Your task to perform on an android device: all mails in gmail Image 0: 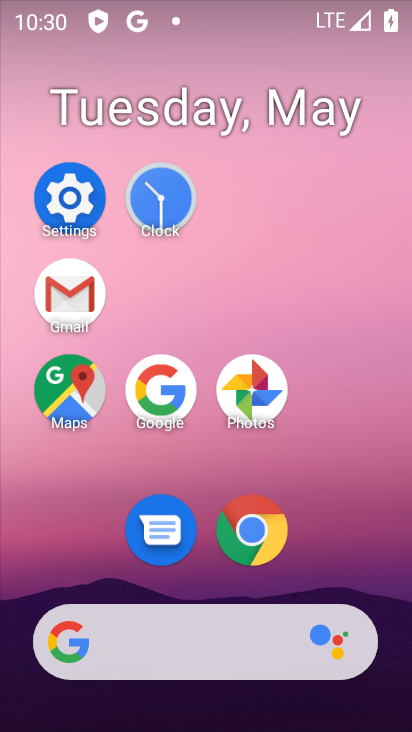
Step 0: click (81, 293)
Your task to perform on an android device: all mails in gmail Image 1: 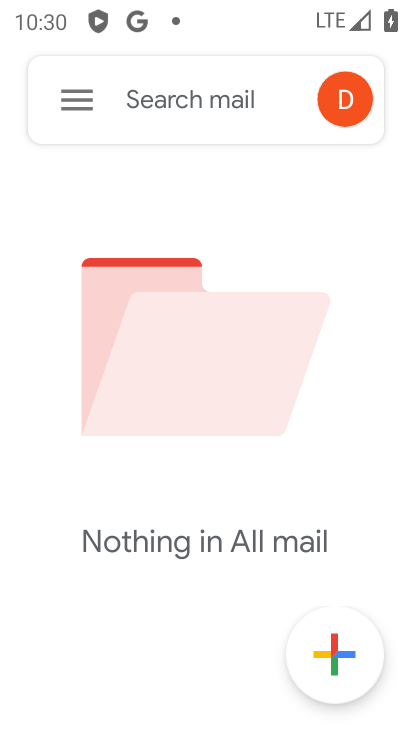
Step 1: click (72, 98)
Your task to perform on an android device: all mails in gmail Image 2: 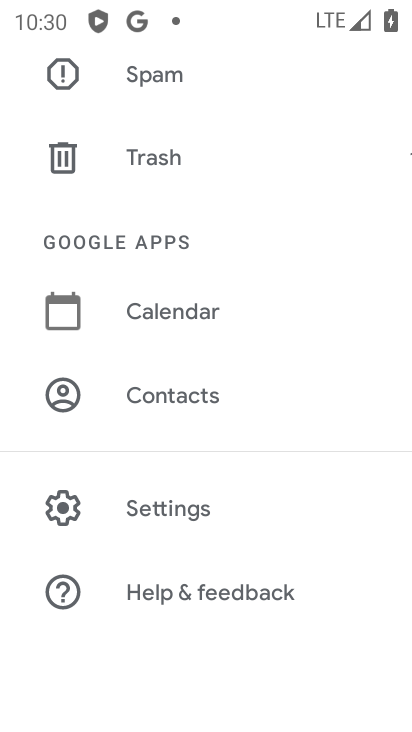
Step 2: drag from (274, 284) to (255, 616)
Your task to perform on an android device: all mails in gmail Image 3: 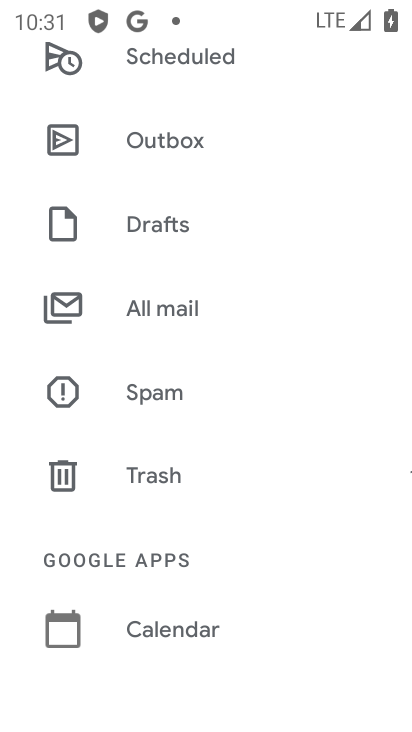
Step 3: drag from (248, 188) to (228, 573)
Your task to perform on an android device: all mails in gmail Image 4: 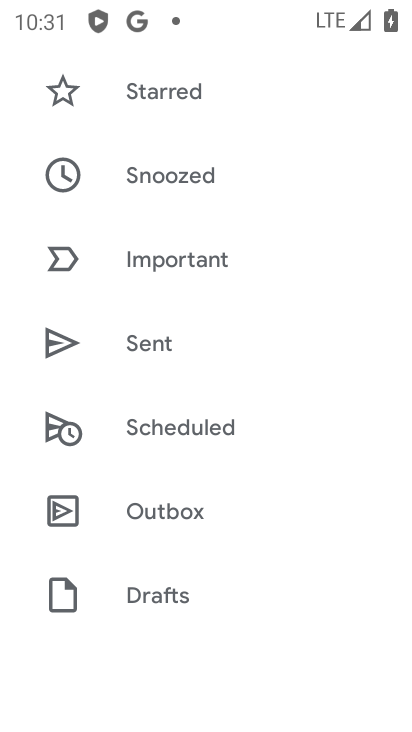
Step 4: drag from (222, 556) to (269, 374)
Your task to perform on an android device: all mails in gmail Image 5: 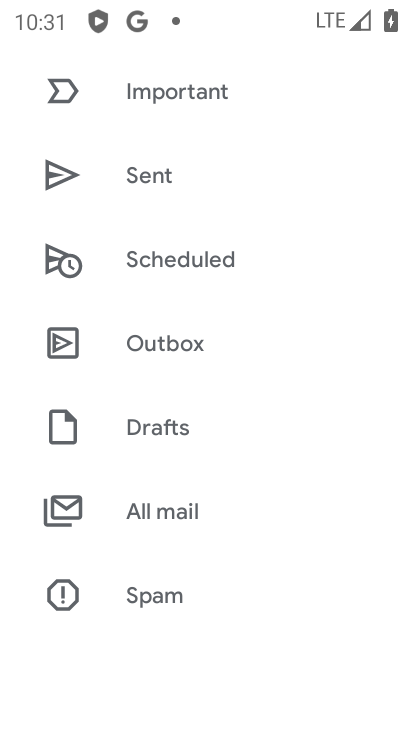
Step 5: click (173, 518)
Your task to perform on an android device: all mails in gmail Image 6: 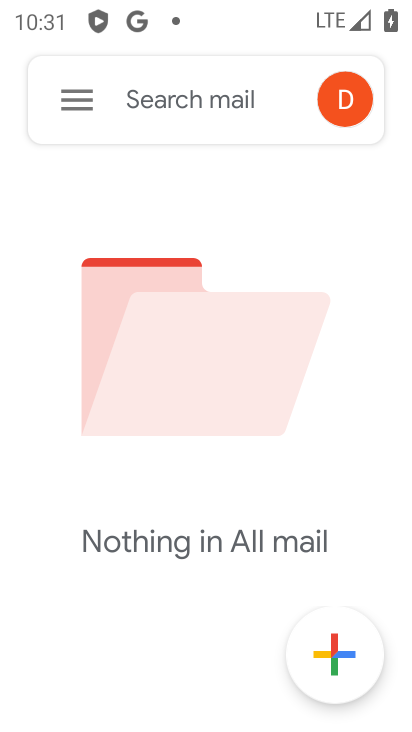
Step 6: task complete